Your task to perform on an android device: Go to settings Image 0: 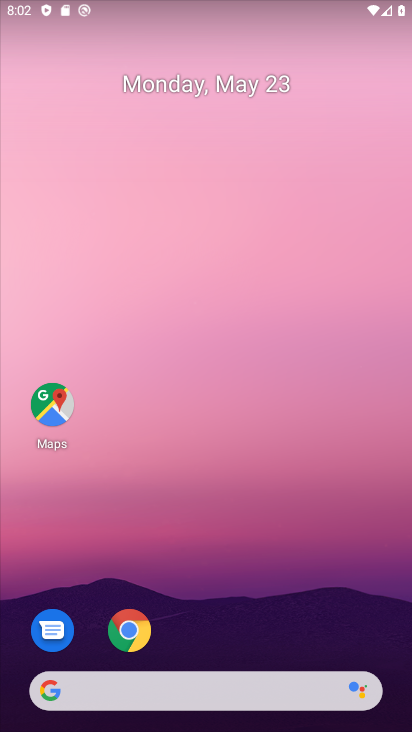
Step 0: drag from (192, 644) to (265, 162)
Your task to perform on an android device: Go to settings Image 1: 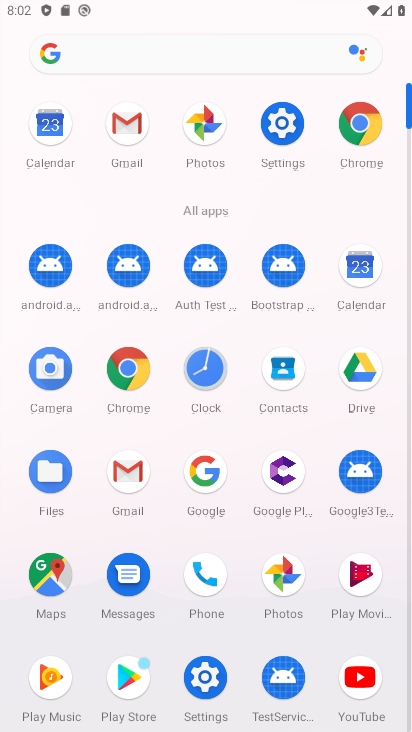
Step 1: click (278, 134)
Your task to perform on an android device: Go to settings Image 2: 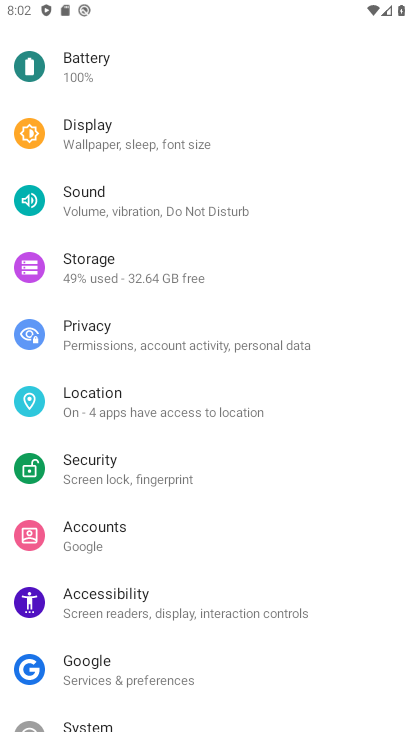
Step 2: task complete